Your task to perform on an android device: turn on data saver in the chrome app Image 0: 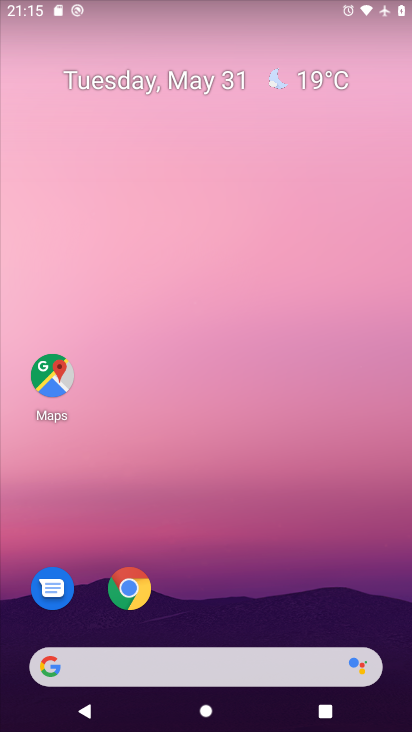
Step 0: click (123, 590)
Your task to perform on an android device: turn on data saver in the chrome app Image 1: 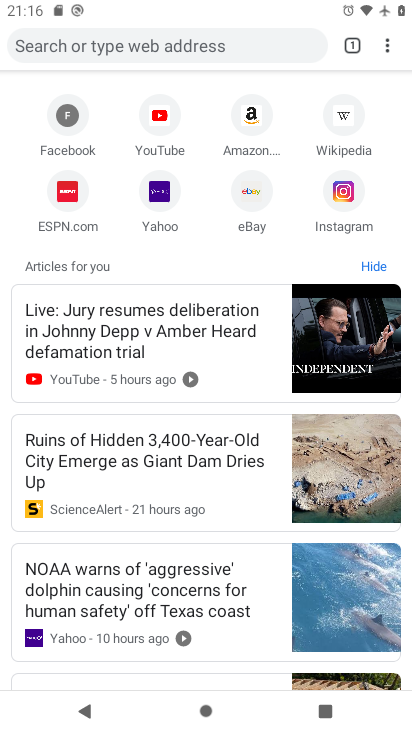
Step 1: drag from (382, 44) to (254, 386)
Your task to perform on an android device: turn on data saver in the chrome app Image 2: 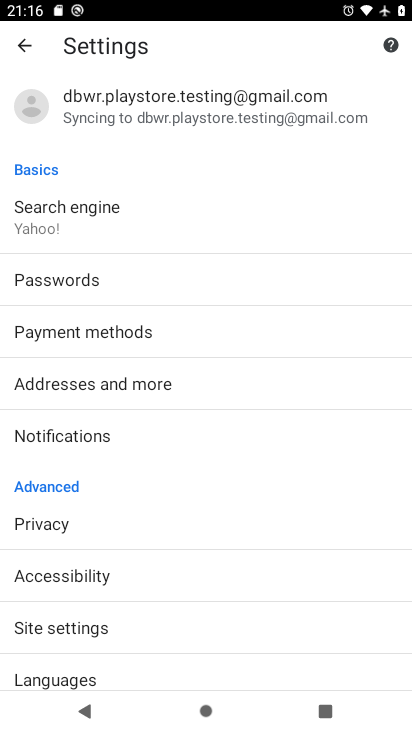
Step 2: drag from (122, 635) to (162, 394)
Your task to perform on an android device: turn on data saver in the chrome app Image 3: 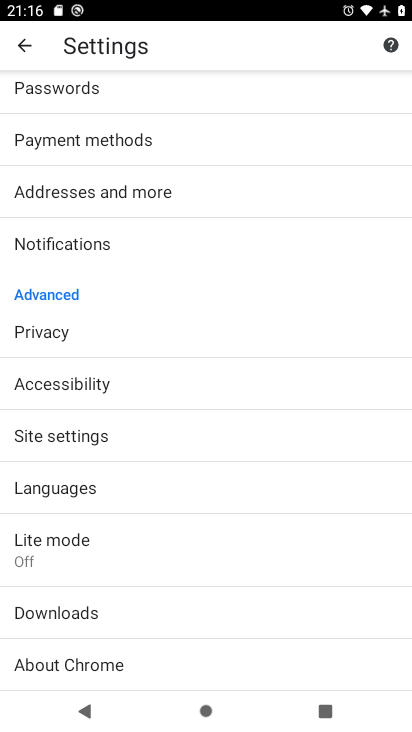
Step 3: click (83, 541)
Your task to perform on an android device: turn on data saver in the chrome app Image 4: 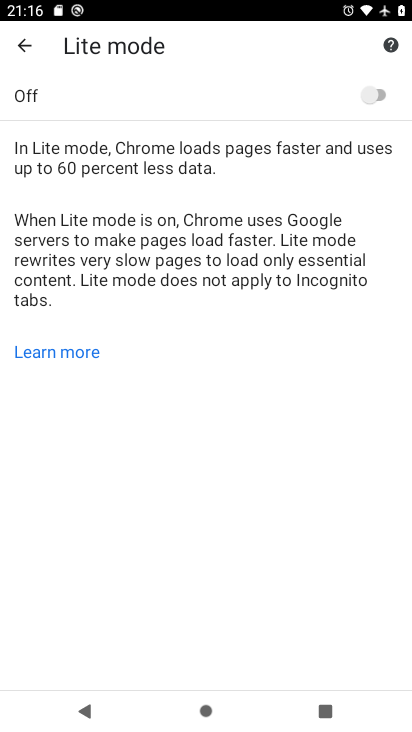
Step 4: click (380, 89)
Your task to perform on an android device: turn on data saver in the chrome app Image 5: 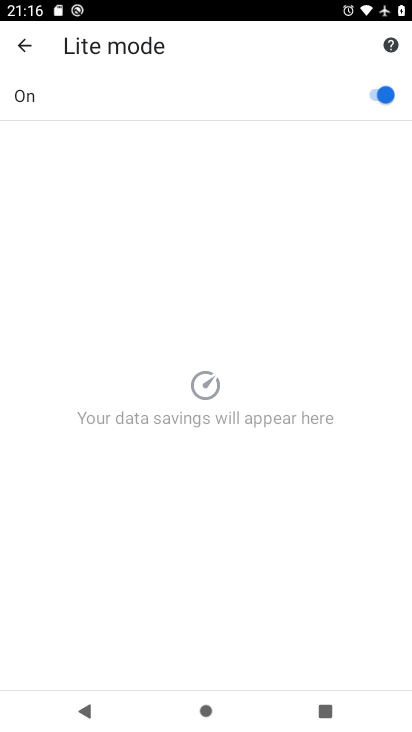
Step 5: task complete